Your task to perform on an android device: turn notification dots off Image 0: 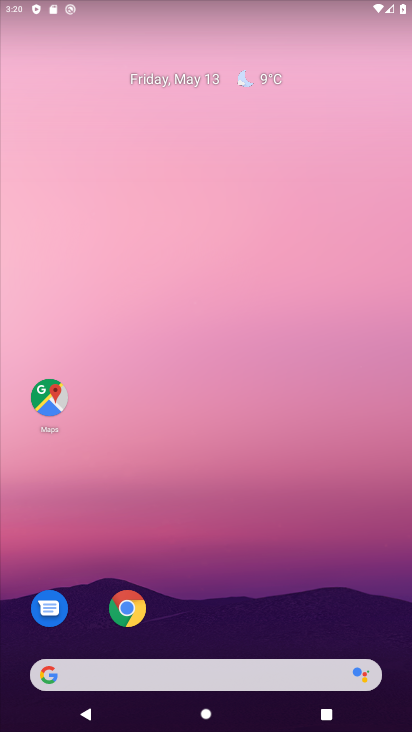
Step 0: drag from (199, 652) to (329, 96)
Your task to perform on an android device: turn notification dots off Image 1: 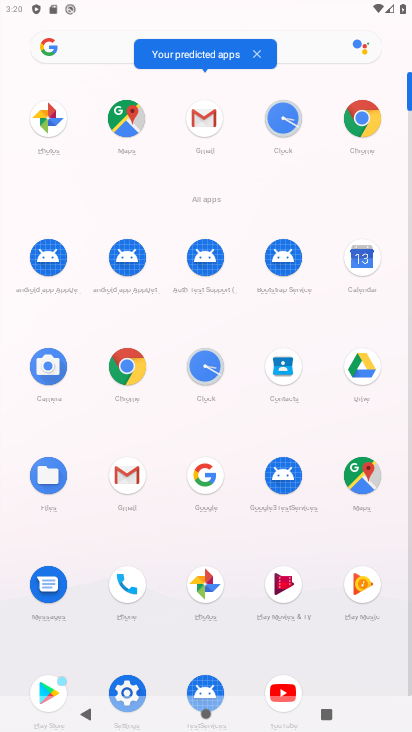
Step 1: drag from (168, 637) to (215, 513)
Your task to perform on an android device: turn notification dots off Image 2: 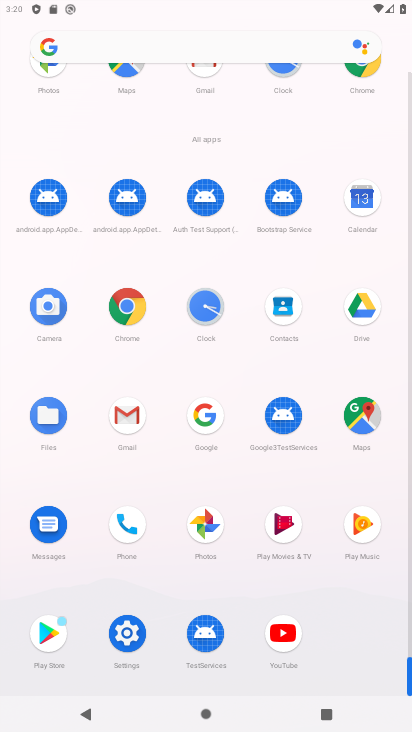
Step 2: click (128, 634)
Your task to perform on an android device: turn notification dots off Image 3: 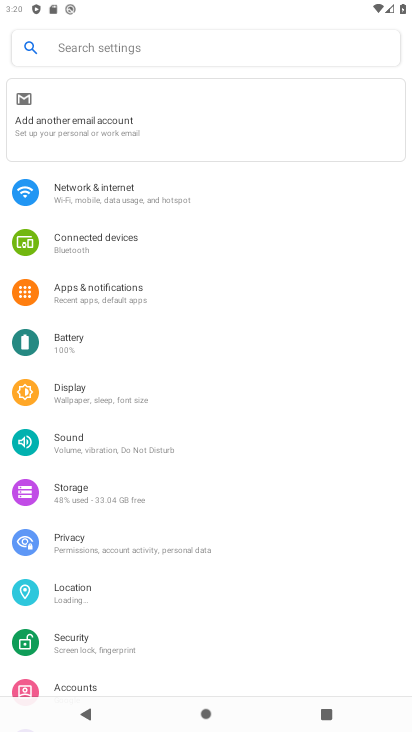
Step 3: drag from (122, 619) to (242, 578)
Your task to perform on an android device: turn notification dots off Image 4: 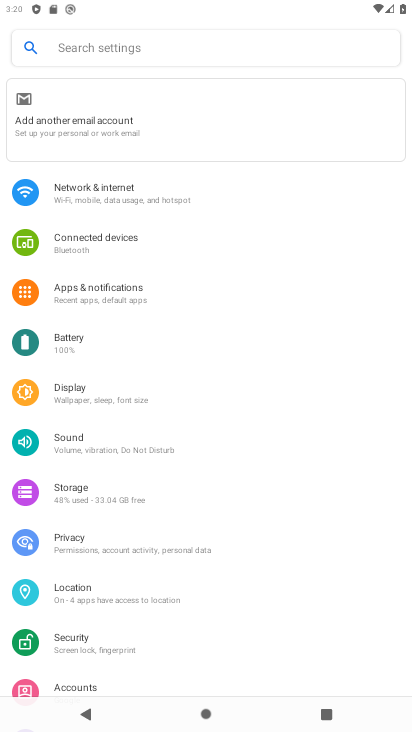
Step 4: click (200, 297)
Your task to perform on an android device: turn notification dots off Image 5: 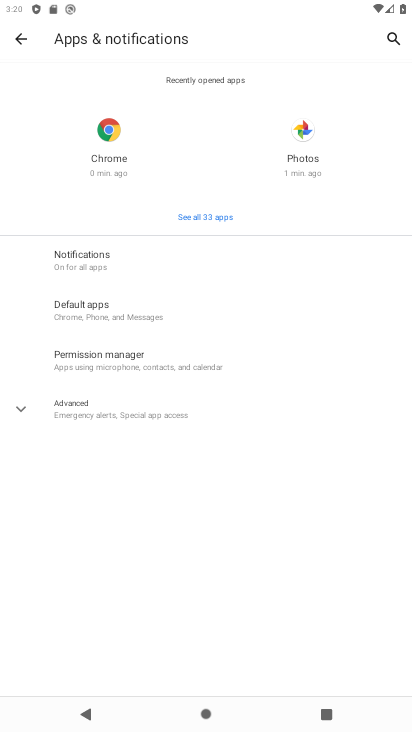
Step 5: click (139, 270)
Your task to perform on an android device: turn notification dots off Image 6: 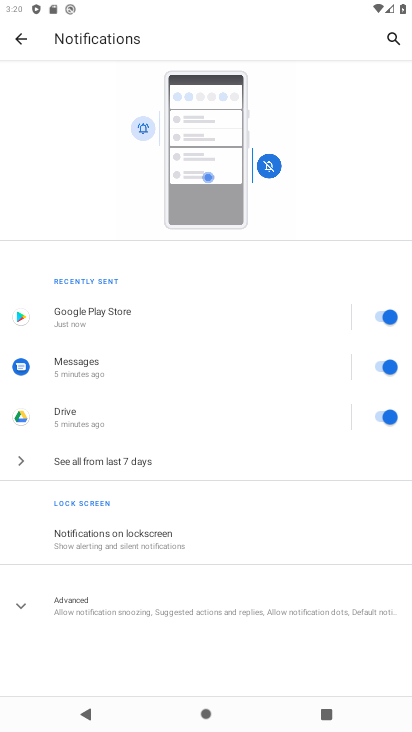
Step 6: drag from (192, 549) to (280, 239)
Your task to perform on an android device: turn notification dots off Image 7: 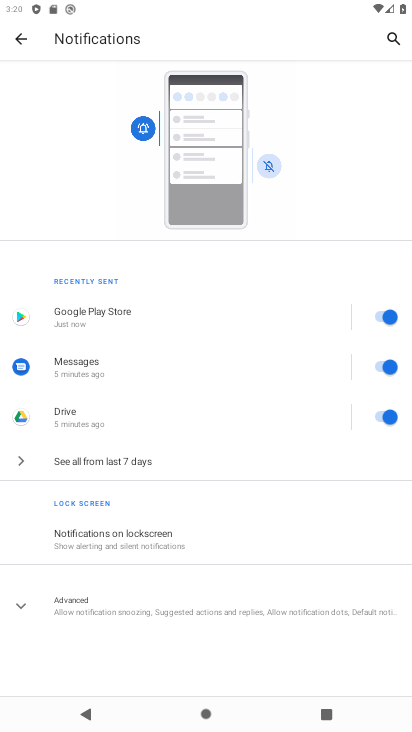
Step 7: click (186, 603)
Your task to perform on an android device: turn notification dots off Image 8: 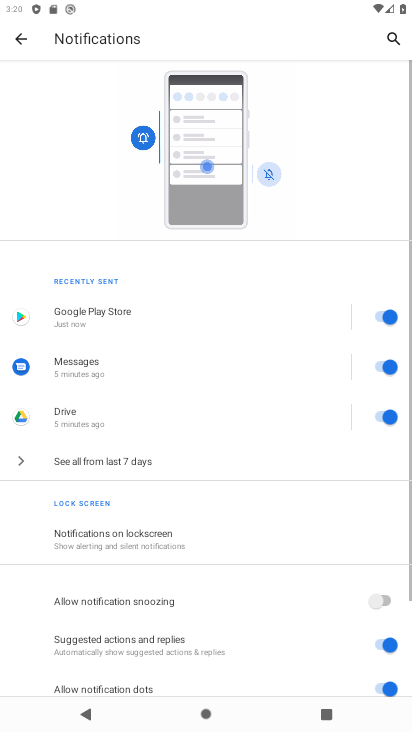
Step 8: drag from (213, 656) to (271, 460)
Your task to perform on an android device: turn notification dots off Image 9: 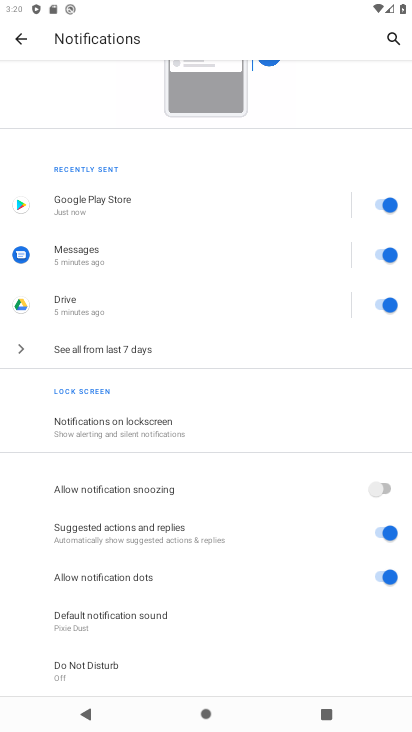
Step 9: click (375, 574)
Your task to perform on an android device: turn notification dots off Image 10: 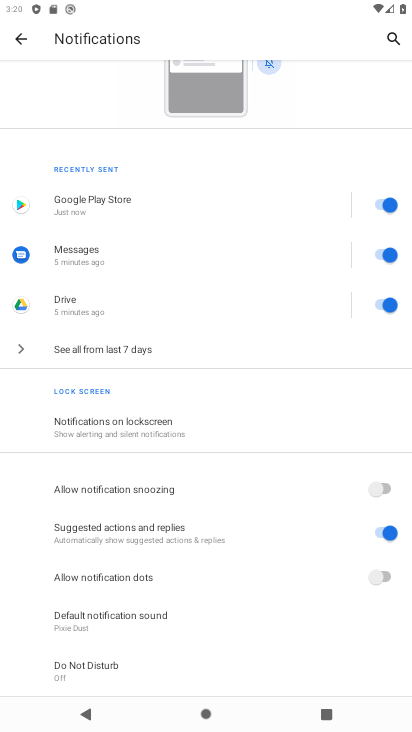
Step 10: task complete